Your task to perform on an android device: When is my next appointment? Image 0: 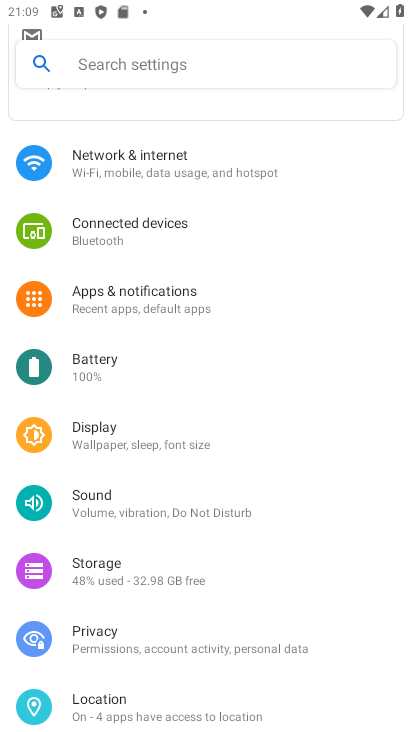
Step 0: press home button
Your task to perform on an android device: When is my next appointment? Image 1: 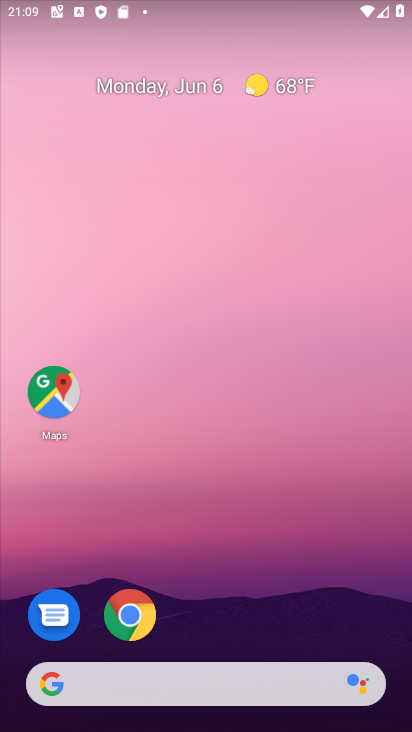
Step 1: drag from (393, 702) to (278, 101)
Your task to perform on an android device: When is my next appointment? Image 2: 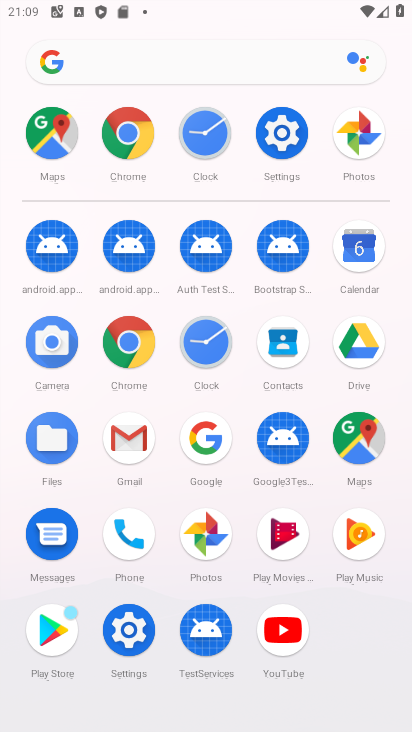
Step 2: click (348, 249)
Your task to perform on an android device: When is my next appointment? Image 3: 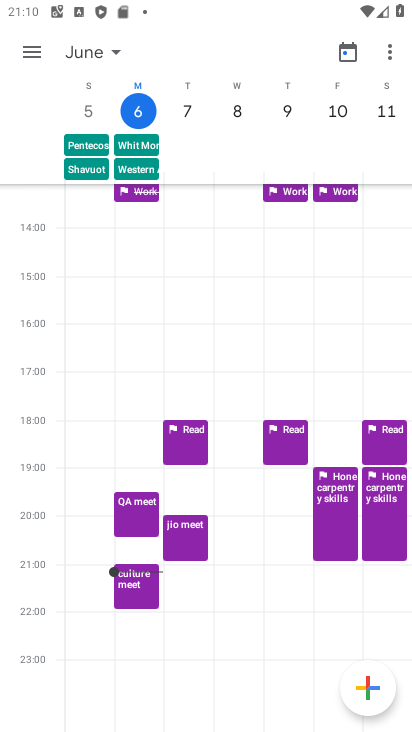
Step 3: click (27, 58)
Your task to perform on an android device: When is my next appointment? Image 4: 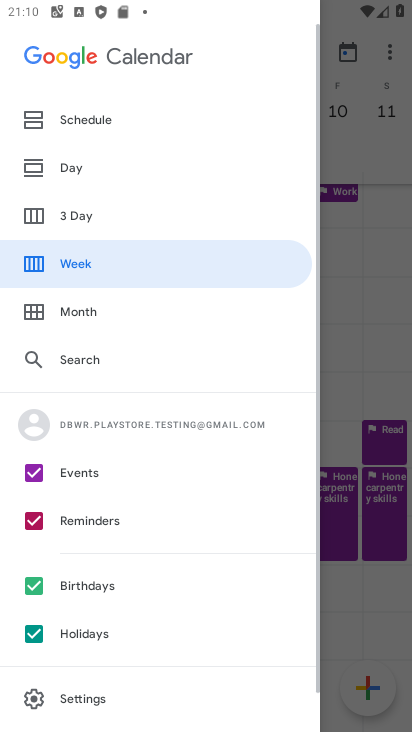
Step 4: click (68, 115)
Your task to perform on an android device: When is my next appointment? Image 5: 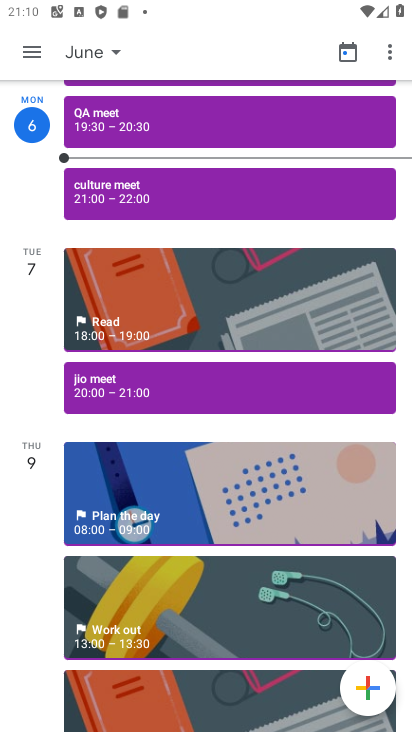
Step 5: click (32, 50)
Your task to perform on an android device: When is my next appointment? Image 6: 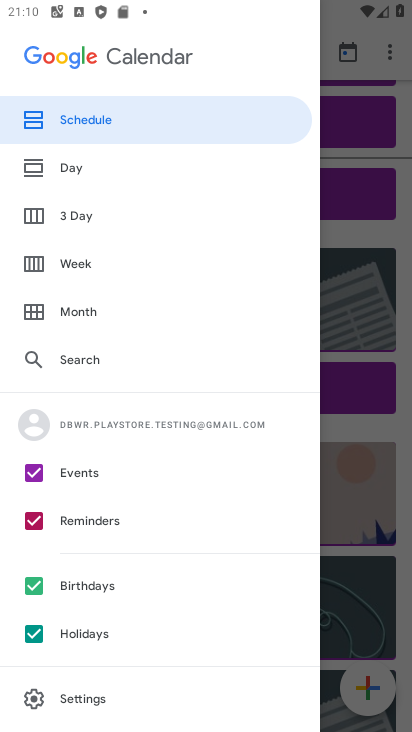
Step 6: click (37, 634)
Your task to perform on an android device: When is my next appointment? Image 7: 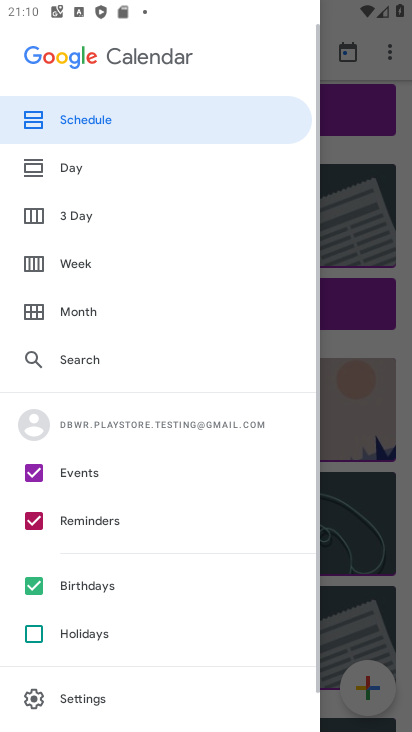
Step 7: click (40, 576)
Your task to perform on an android device: When is my next appointment? Image 8: 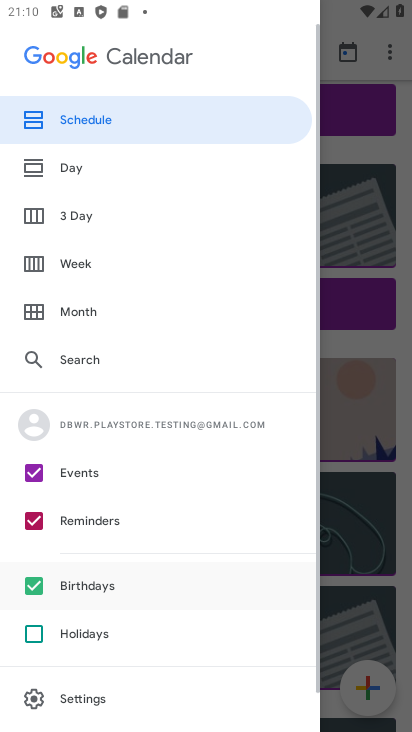
Step 8: click (39, 518)
Your task to perform on an android device: When is my next appointment? Image 9: 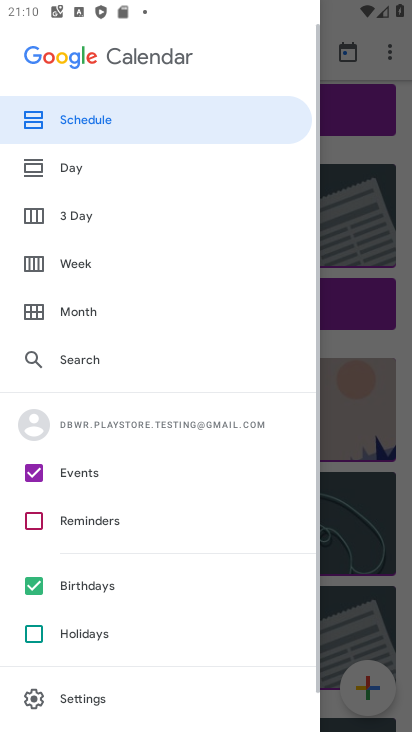
Step 9: click (22, 586)
Your task to perform on an android device: When is my next appointment? Image 10: 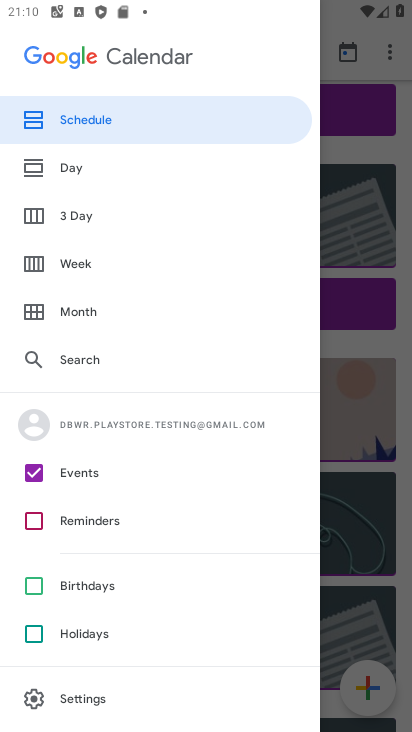
Step 10: click (73, 308)
Your task to perform on an android device: When is my next appointment? Image 11: 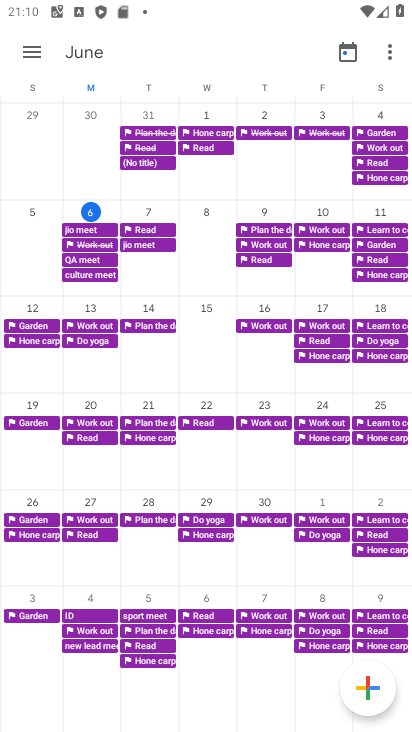
Step 11: task complete